Your task to perform on an android device: Go to Google maps Image 0: 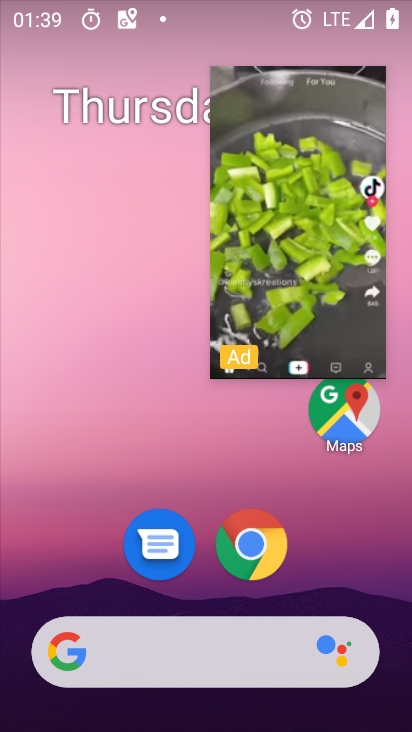
Step 0: drag from (365, 583) to (368, 123)
Your task to perform on an android device: Go to Google maps Image 1: 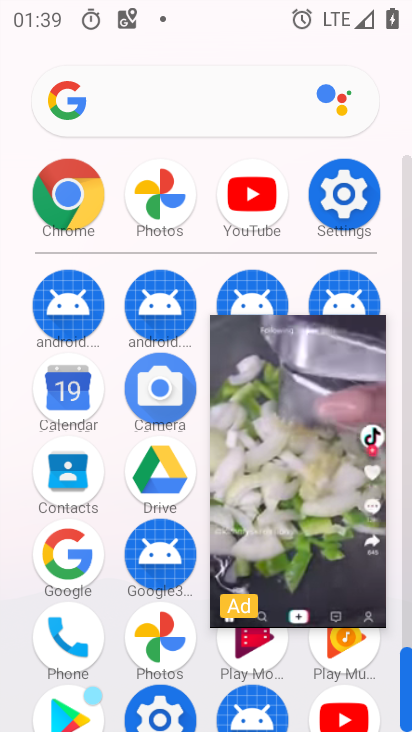
Step 1: drag from (297, 265) to (284, 45)
Your task to perform on an android device: Go to Google maps Image 2: 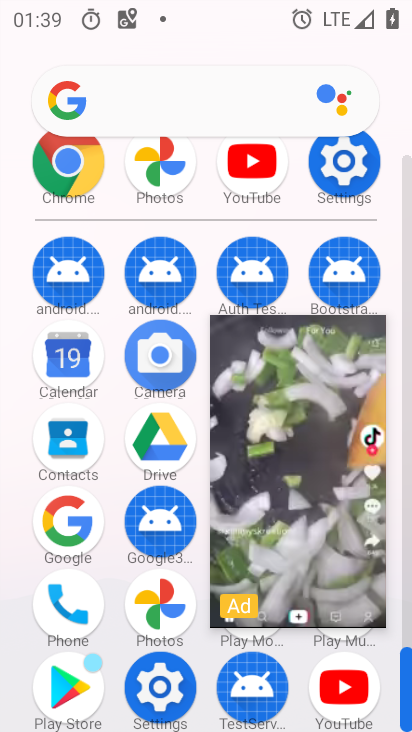
Step 2: drag from (394, 524) to (382, 220)
Your task to perform on an android device: Go to Google maps Image 3: 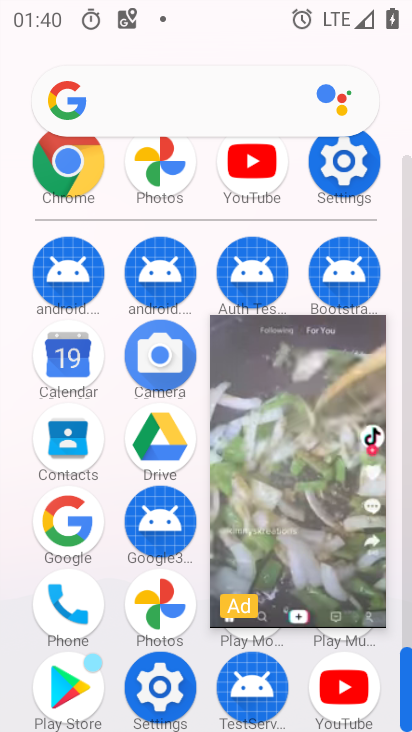
Step 3: drag from (312, 416) to (118, 711)
Your task to perform on an android device: Go to Google maps Image 4: 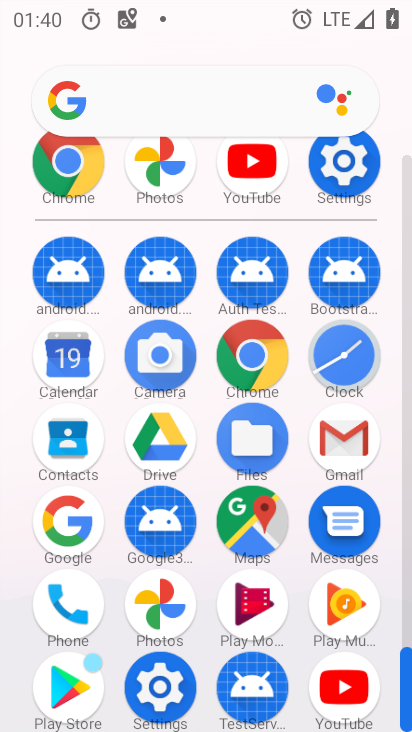
Step 4: click (244, 508)
Your task to perform on an android device: Go to Google maps Image 5: 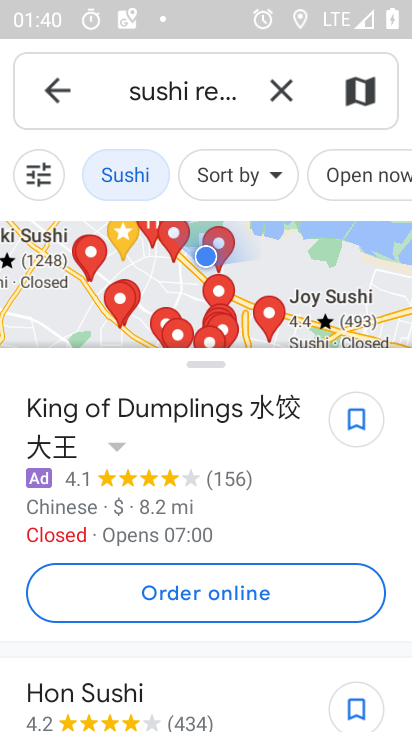
Step 5: task complete